Your task to perform on an android device: Check the news Image 0: 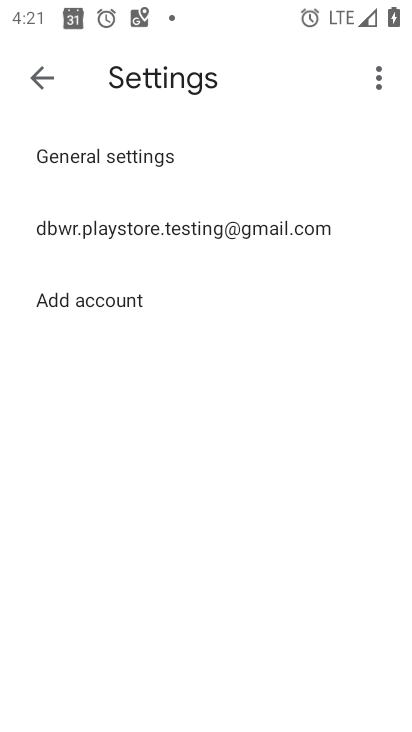
Step 0: press home button
Your task to perform on an android device: Check the news Image 1: 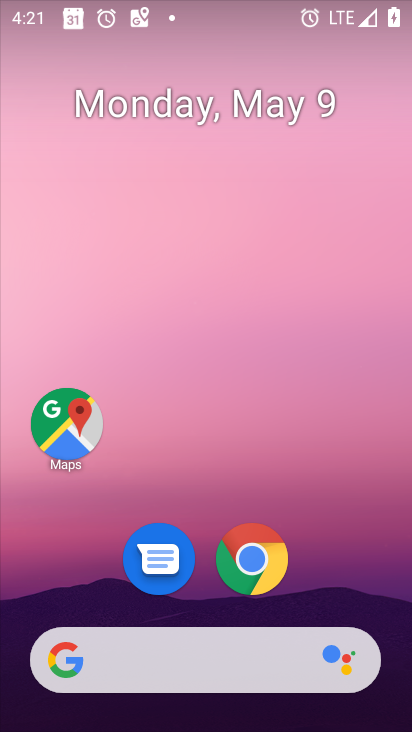
Step 1: task complete